Your task to perform on an android device: Search for the new ikea dresser Image 0: 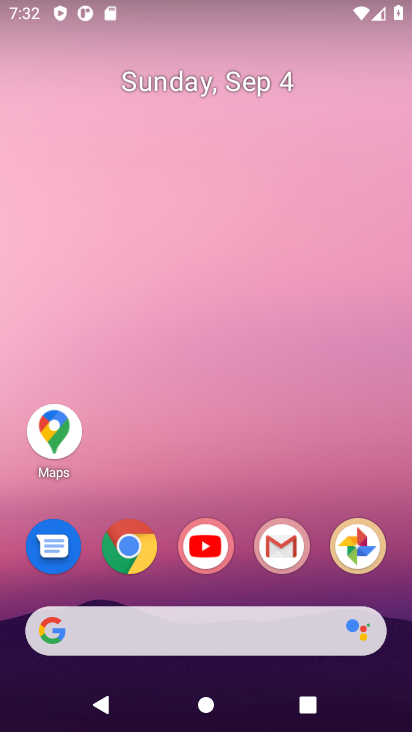
Step 0: click (121, 555)
Your task to perform on an android device: Search for the new ikea dresser Image 1: 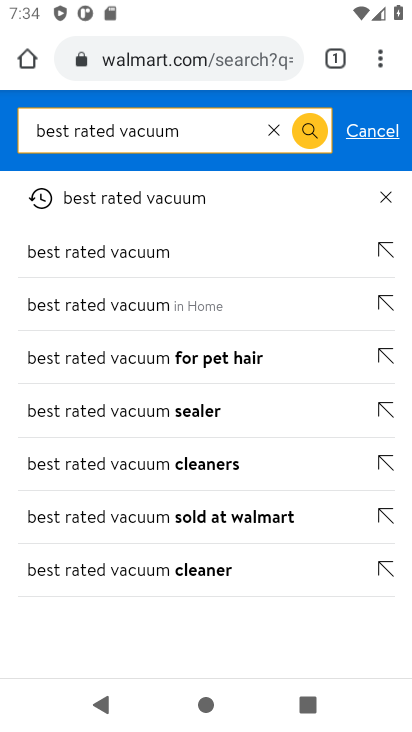
Step 1: click (178, 59)
Your task to perform on an android device: Search for the new ikea dresser Image 2: 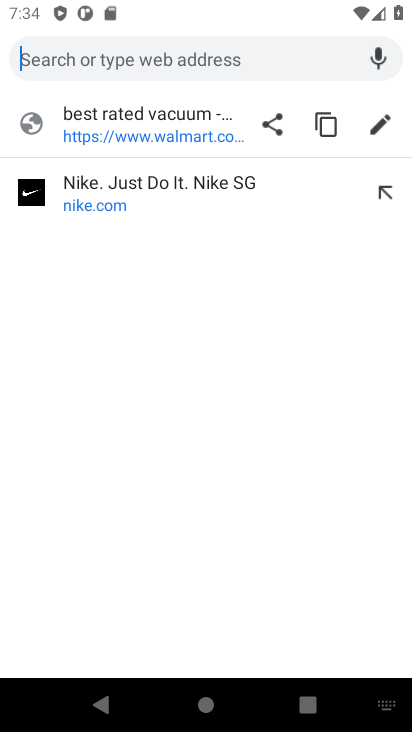
Step 2: type "new ikea dresser"
Your task to perform on an android device: Search for the new ikea dresser Image 3: 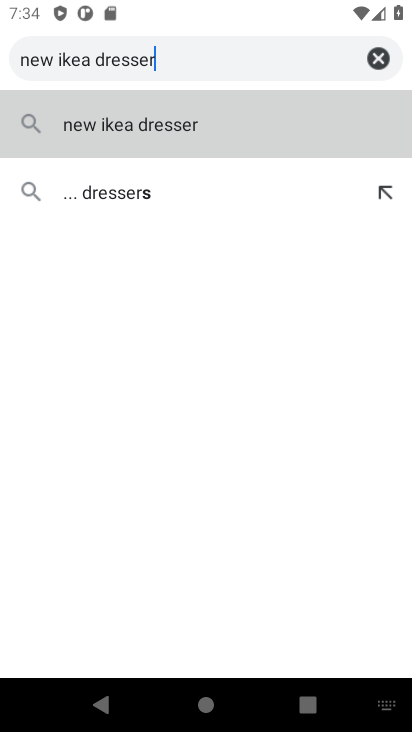
Step 3: click (129, 129)
Your task to perform on an android device: Search for the new ikea dresser Image 4: 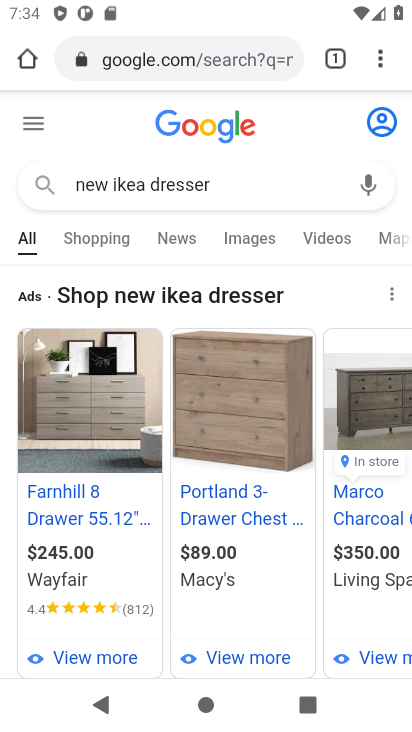
Step 4: drag from (221, 520) to (243, 406)
Your task to perform on an android device: Search for the new ikea dresser Image 5: 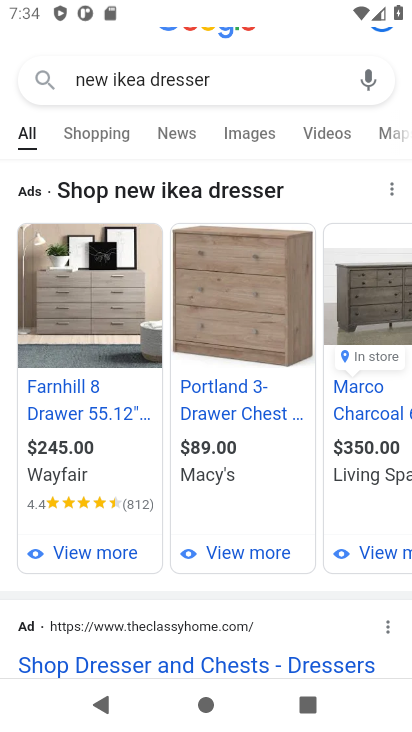
Step 5: drag from (234, 534) to (242, 406)
Your task to perform on an android device: Search for the new ikea dresser Image 6: 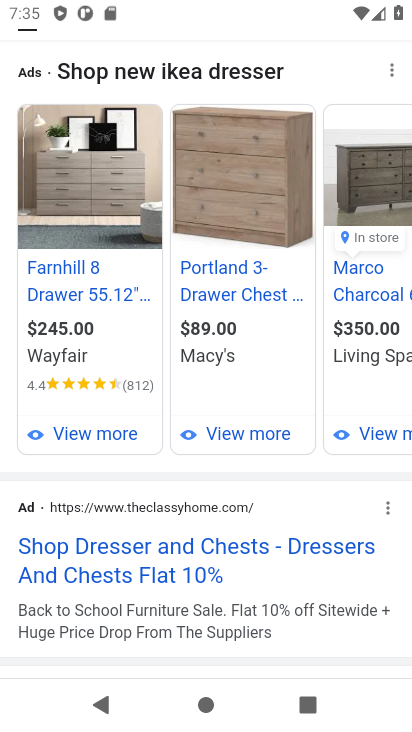
Step 6: drag from (264, 449) to (239, 301)
Your task to perform on an android device: Search for the new ikea dresser Image 7: 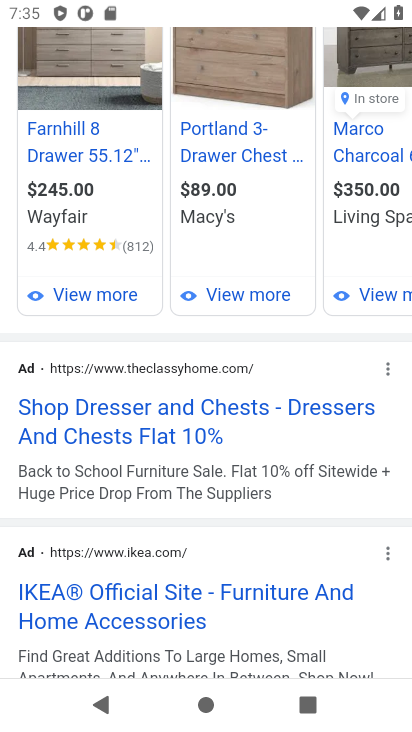
Step 7: drag from (217, 463) to (223, 347)
Your task to perform on an android device: Search for the new ikea dresser Image 8: 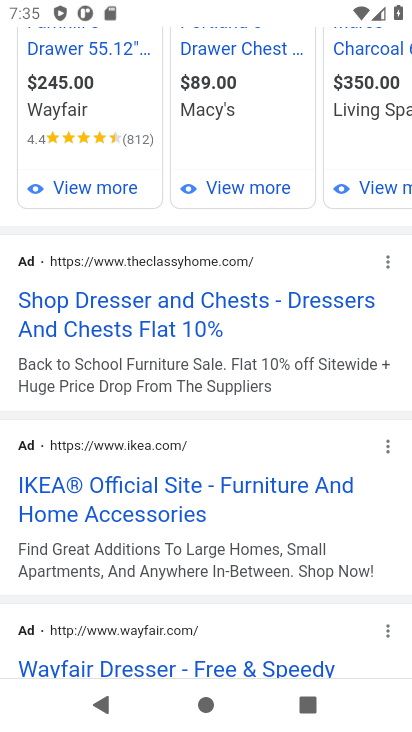
Step 8: drag from (227, 315) to (262, 304)
Your task to perform on an android device: Search for the new ikea dresser Image 9: 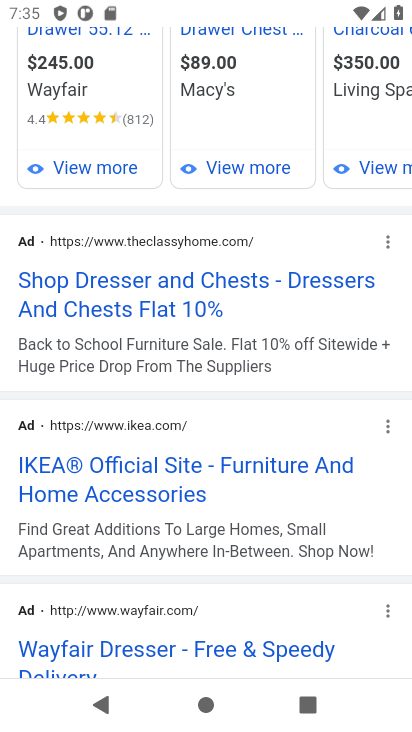
Step 9: click (100, 470)
Your task to perform on an android device: Search for the new ikea dresser Image 10: 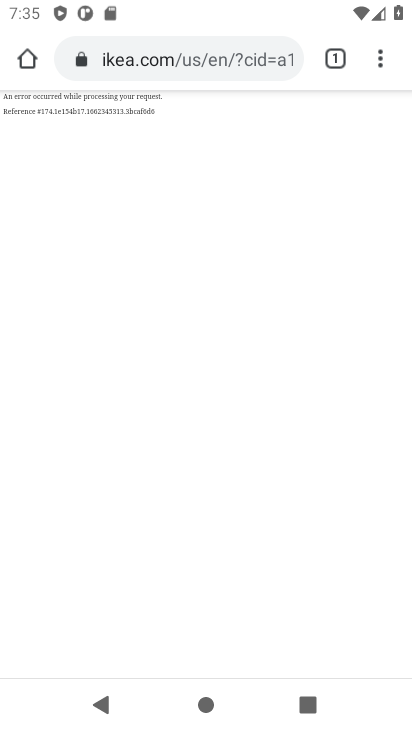
Step 10: task complete